Your task to perform on an android device: open device folders in google photos Image 0: 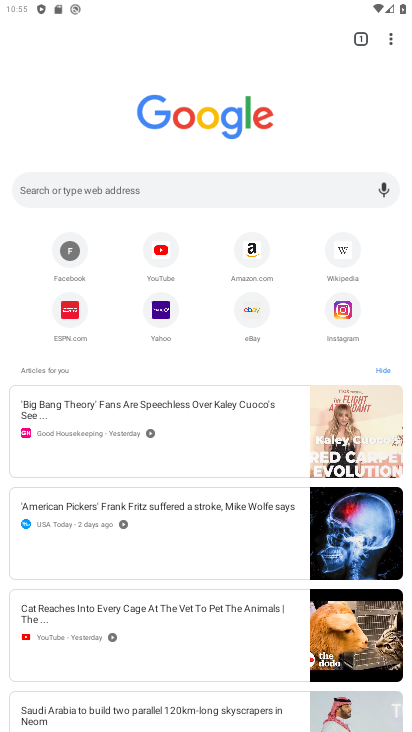
Step 0: press home button
Your task to perform on an android device: open device folders in google photos Image 1: 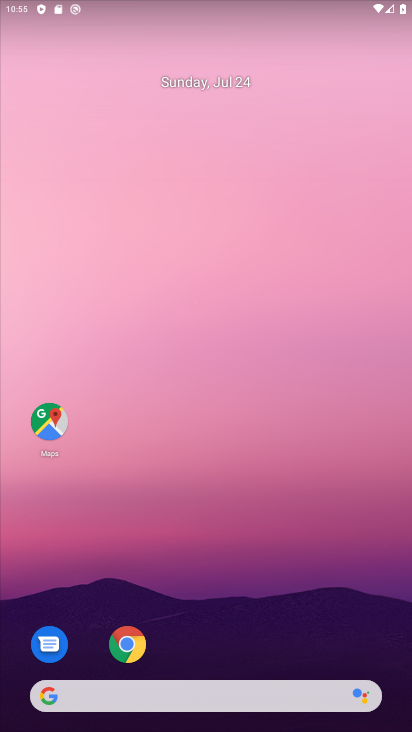
Step 1: drag from (207, 666) to (251, 49)
Your task to perform on an android device: open device folders in google photos Image 2: 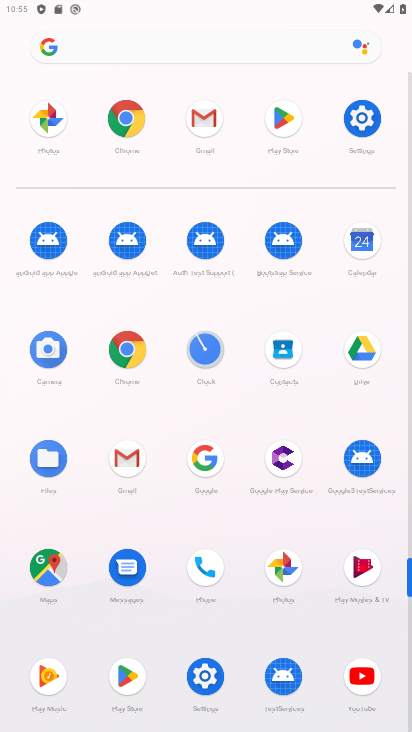
Step 2: click (46, 121)
Your task to perform on an android device: open device folders in google photos Image 3: 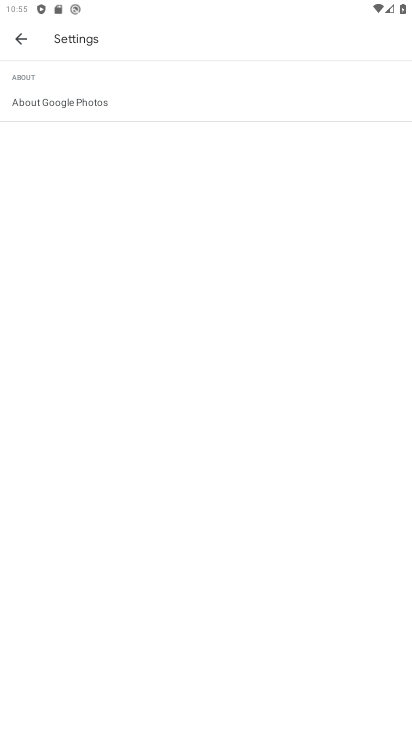
Step 3: click (21, 41)
Your task to perform on an android device: open device folders in google photos Image 4: 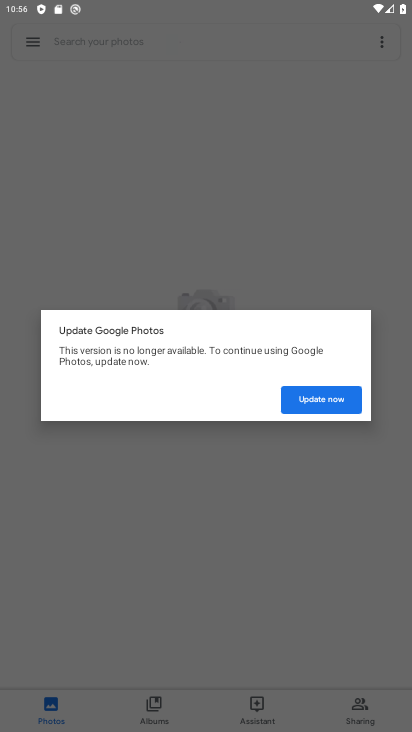
Step 4: click (305, 407)
Your task to perform on an android device: open device folders in google photos Image 5: 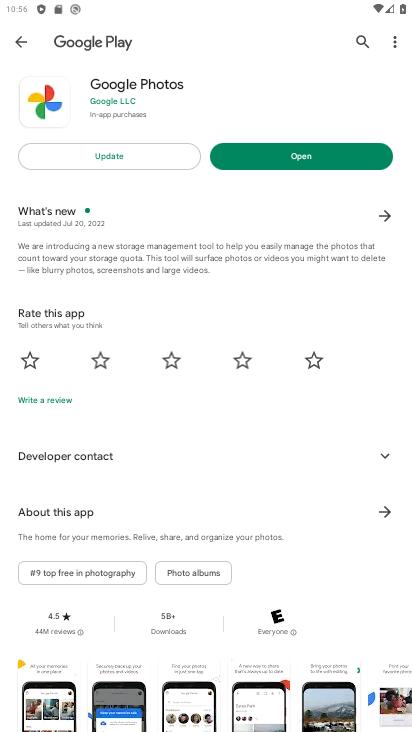
Step 5: click (314, 165)
Your task to perform on an android device: open device folders in google photos Image 6: 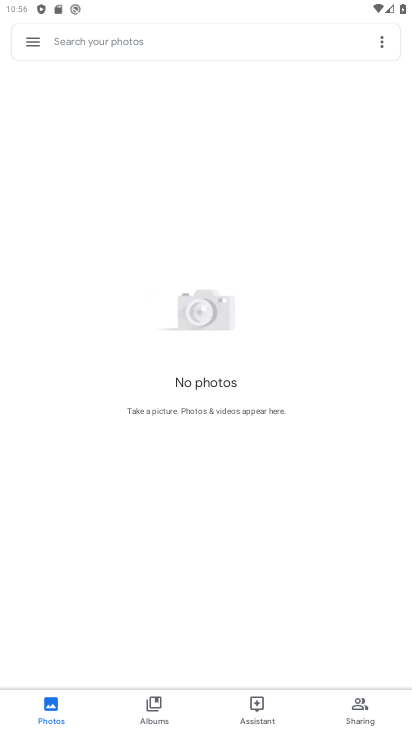
Step 6: click (32, 37)
Your task to perform on an android device: open device folders in google photos Image 7: 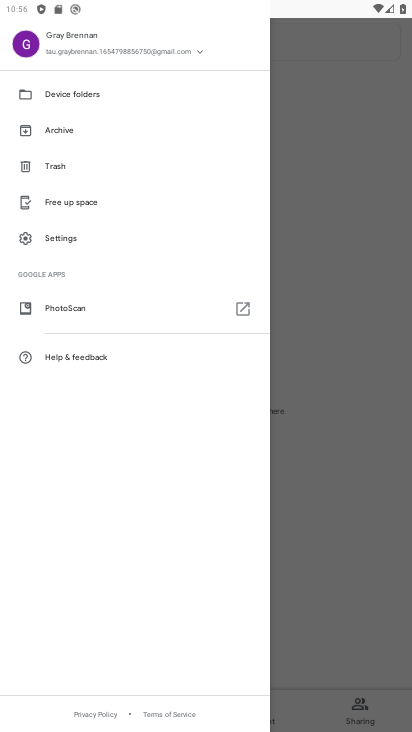
Step 7: click (51, 95)
Your task to perform on an android device: open device folders in google photos Image 8: 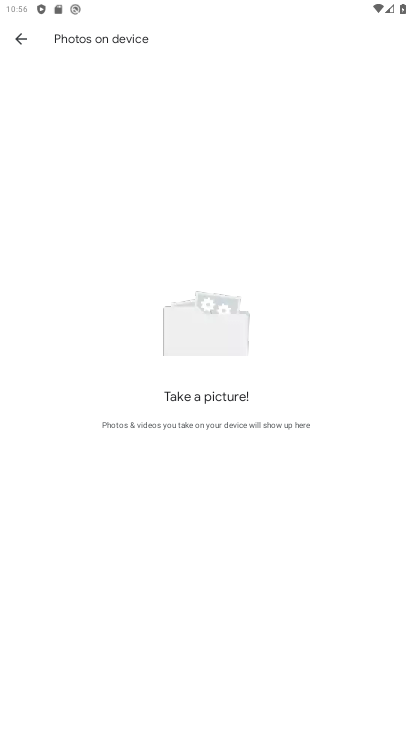
Step 8: task complete